Your task to perform on an android device: When is my next appointment? Image 0: 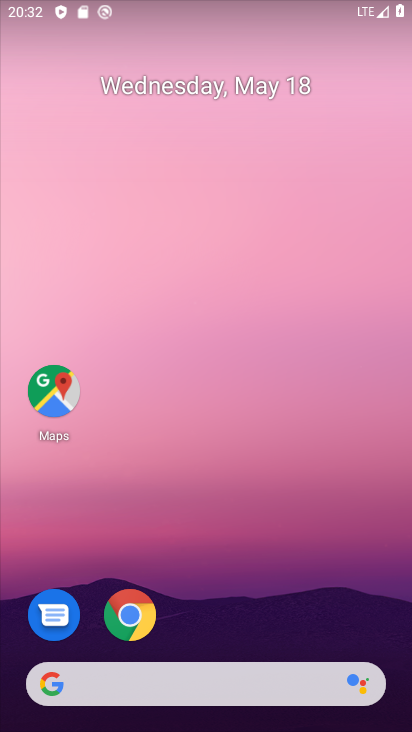
Step 0: drag from (213, 677) to (240, 97)
Your task to perform on an android device: When is my next appointment? Image 1: 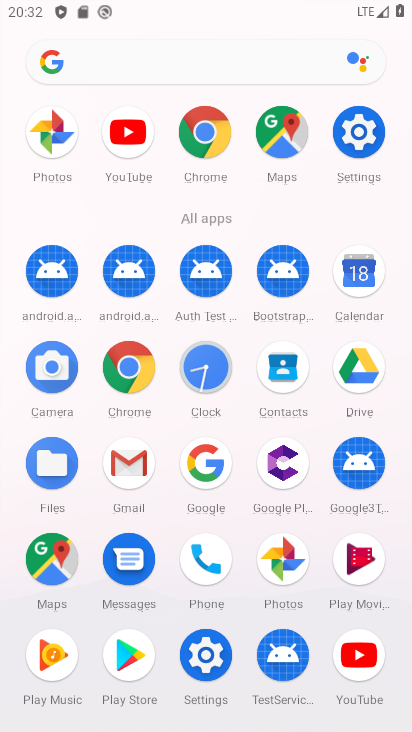
Step 1: click (366, 280)
Your task to perform on an android device: When is my next appointment? Image 2: 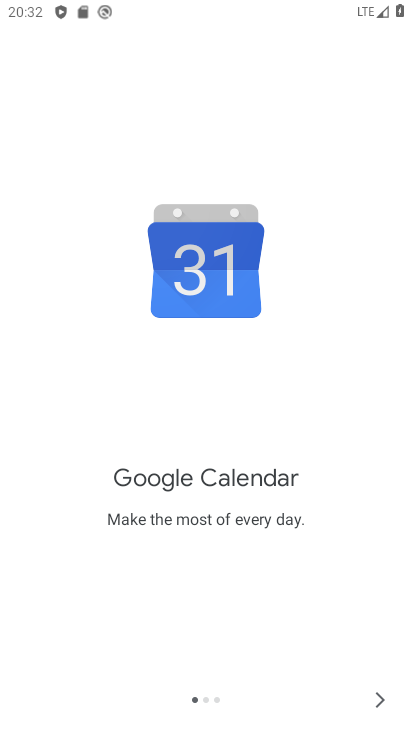
Step 2: click (384, 707)
Your task to perform on an android device: When is my next appointment? Image 3: 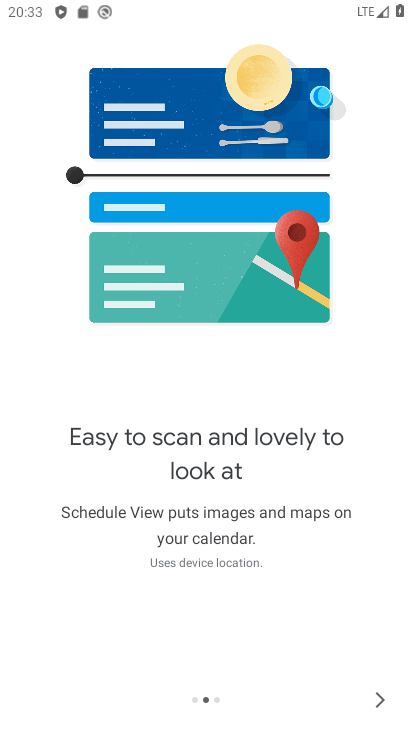
Step 3: click (374, 694)
Your task to perform on an android device: When is my next appointment? Image 4: 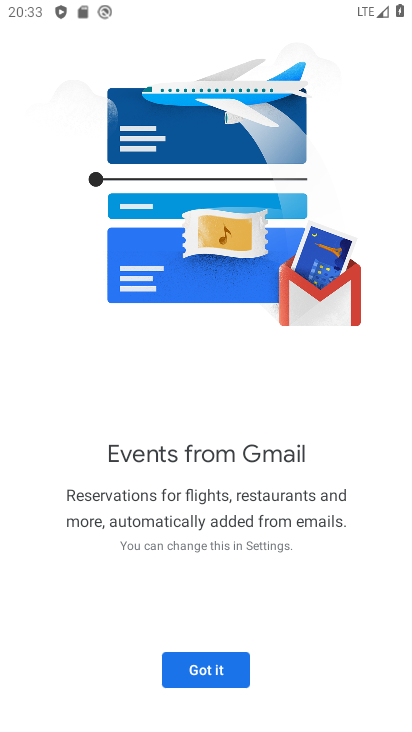
Step 4: click (374, 694)
Your task to perform on an android device: When is my next appointment? Image 5: 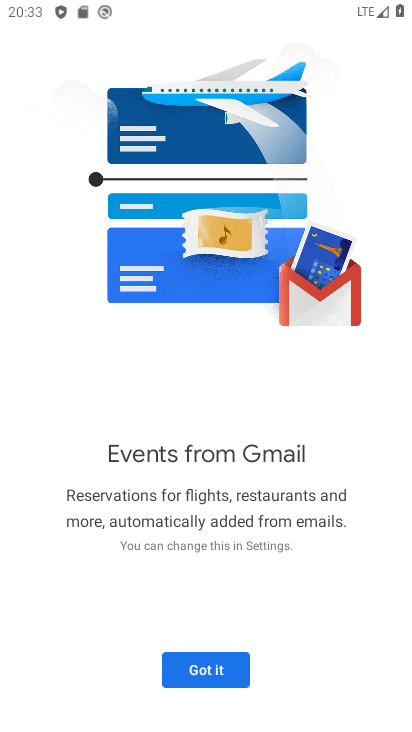
Step 5: click (204, 664)
Your task to perform on an android device: When is my next appointment? Image 6: 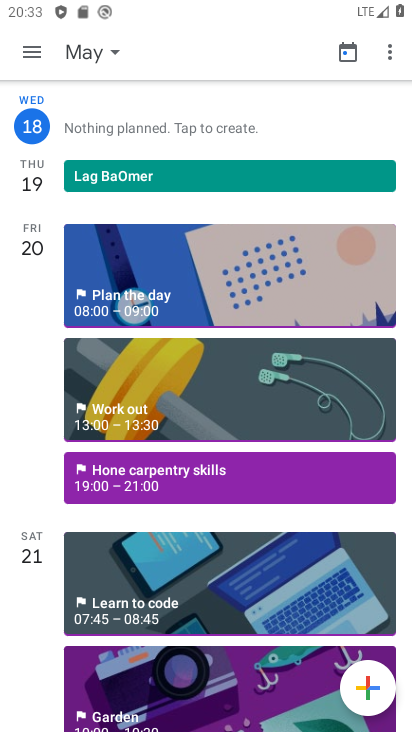
Step 6: task complete